Your task to perform on an android device: Turn off the flashlight Image 0: 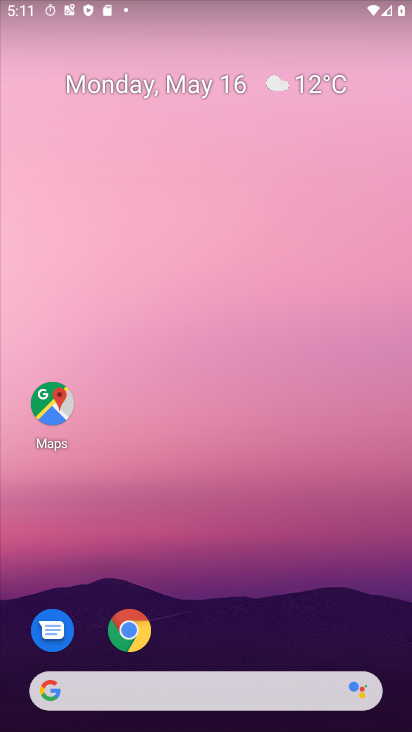
Step 0: drag from (323, 3) to (315, 522)
Your task to perform on an android device: Turn off the flashlight Image 1: 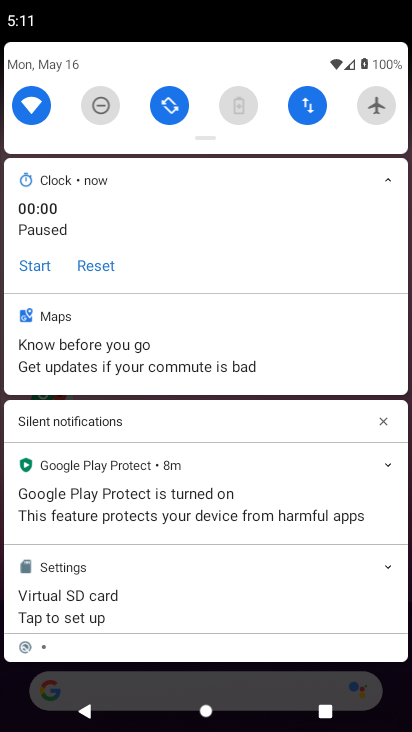
Step 1: task complete